Your task to perform on an android device: turn off location Image 0: 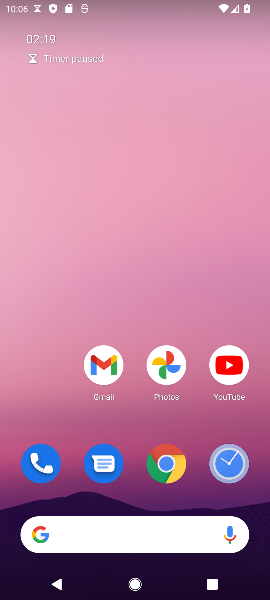
Step 0: drag from (17, 582) to (137, 183)
Your task to perform on an android device: turn off location Image 1: 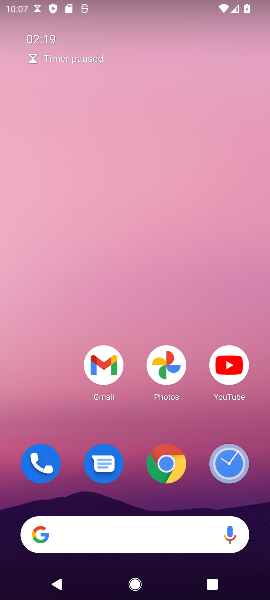
Step 1: drag from (19, 572) to (244, 85)
Your task to perform on an android device: turn off location Image 2: 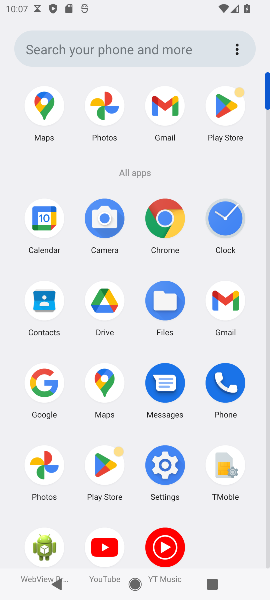
Step 2: click (163, 461)
Your task to perform on an android device: turn off location Image 3: 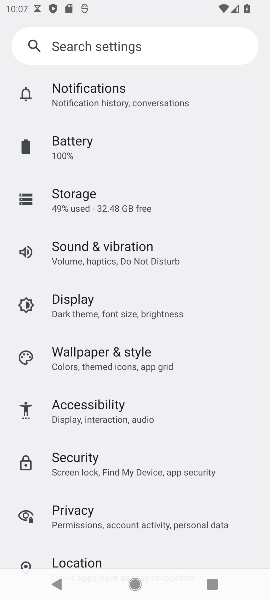
Step 3: drag from (245, 543) to (180, 204)
Your task to perform on an android device: turn off location Image 4: 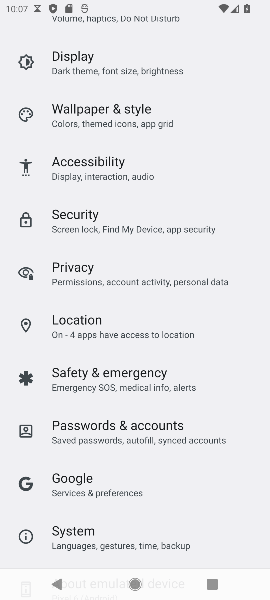
Step 4: click (84, 326)
Your task to perform on an android device: turn off location Image 5: 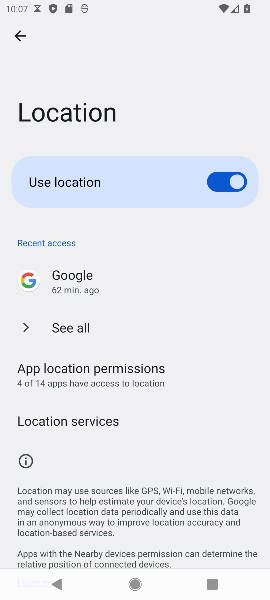
Step 5: click (225, 175)
Your task to perform on an android device: turn off location Image 6: 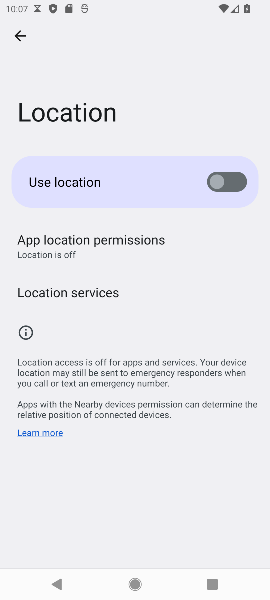
Step 6: task complete